Your task to perform on an android device: Go to Wikipedia Image 0: 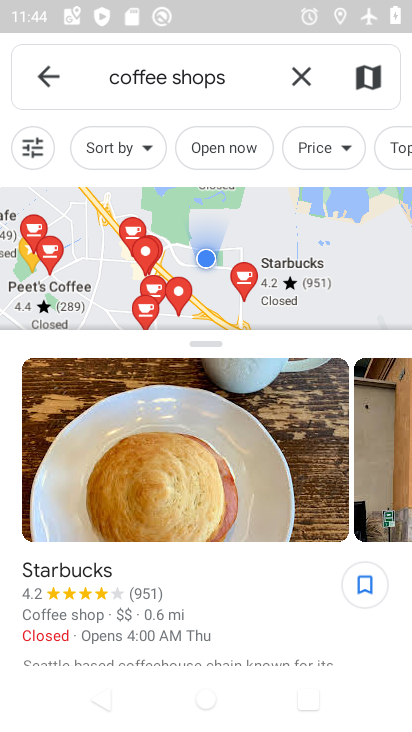
Step 0: press back button
Your task to perform on an android device: Go to Wikipedia Image 1: 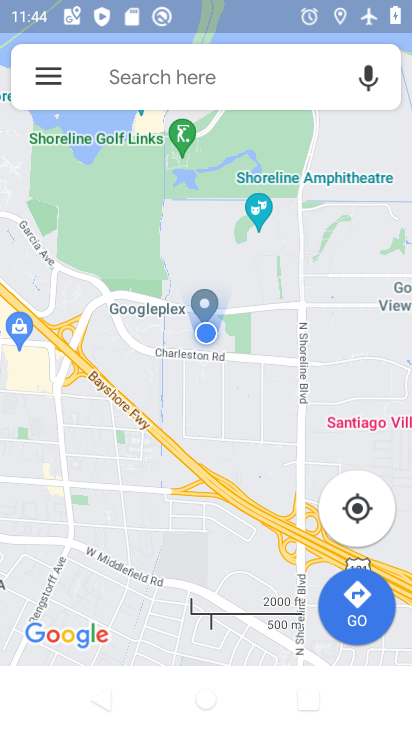
Step 1: press back button
Your task to perform on an android device: Go to Wikipedia Image 2: 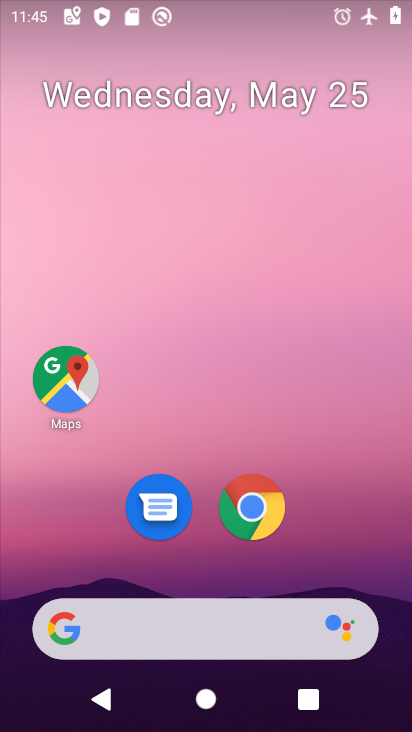
Step 2: click (253, 507)
Your task to perform on an android device: Go to Wikipedia Image 3: 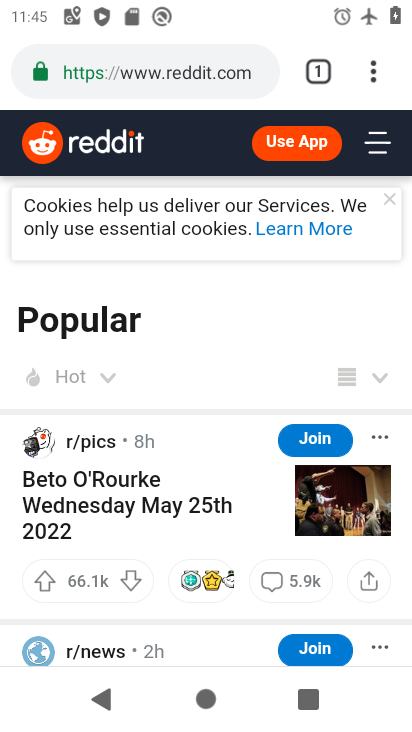
Step 3: click (249, 73)
Your task to perform on an android device: Go to Wikipedia Image 4: 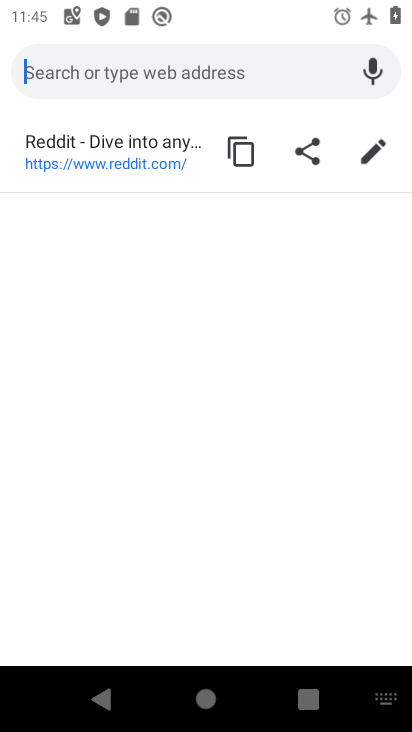
Step 4: type "Wikipedia"
Your task to perform on an android device: Go to Wikipedia Image 5: 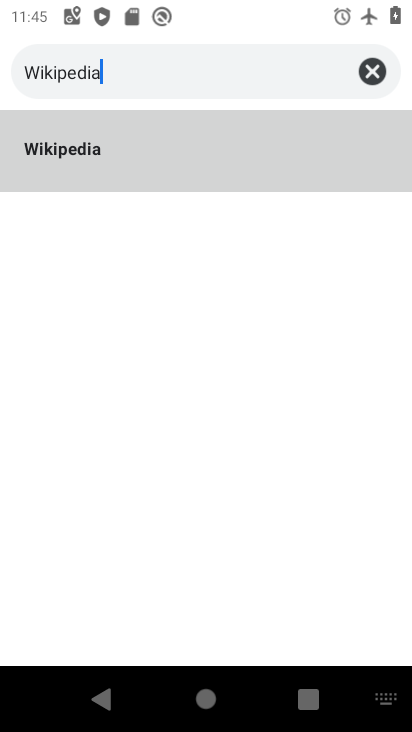
Step 5: click (89, 152)
Your task to perform on an android device: Go to Wikipedia Image 6: 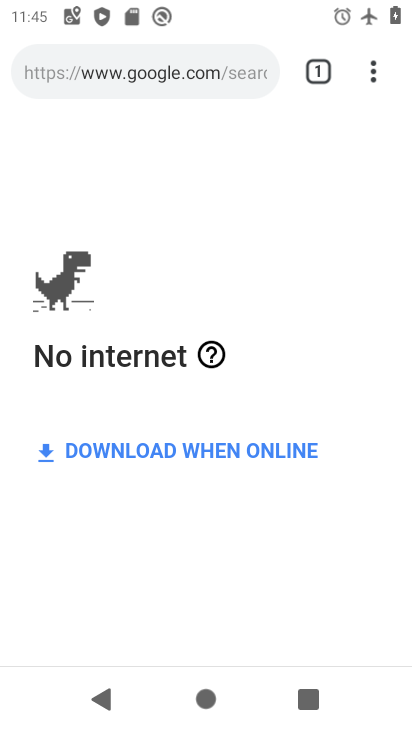
Step 6: task complete